Your task to perform on an android device: turn on improve location accuracy Image 0: 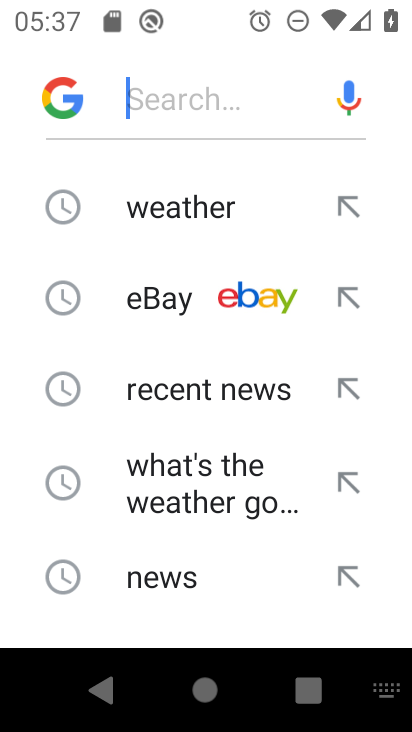
Step 0: press home button
Your task to perform on an android device: turn on improve location accuracy Image 1: 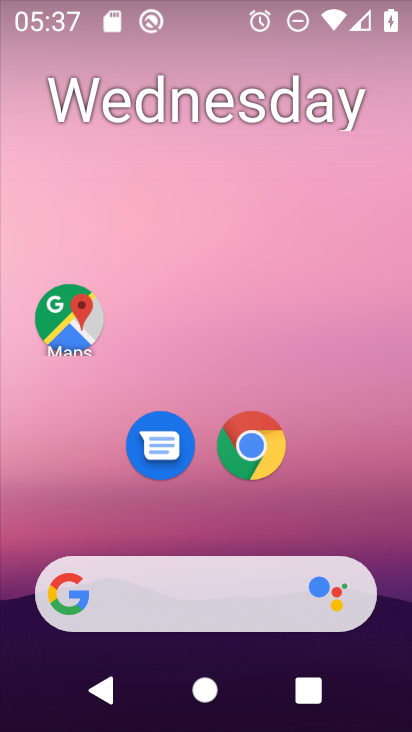
Step 1: drag from (180, 535) to (218, 131)
Your task to perform on an android device: turn on improve location accuracy Image 2: 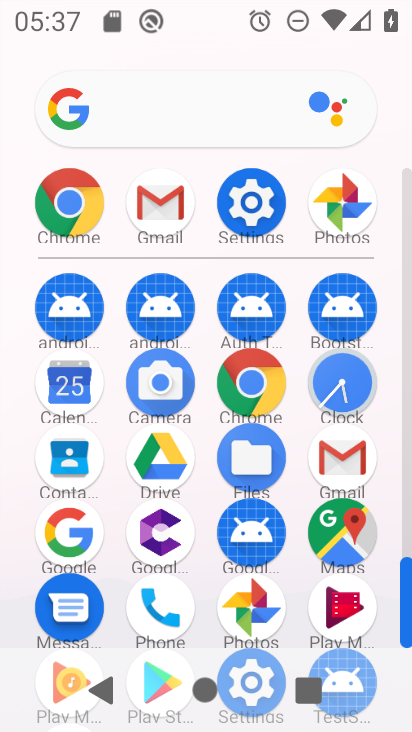
Step 2: click (259, 190)
Your task to perform on an android device: turn on improve location accuracy Image 3: 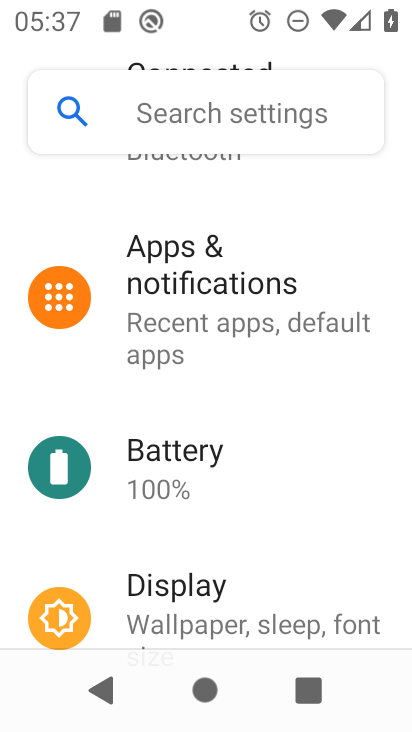
Step 3: drag from (105, 566) to (184, 134)
Your task to perform on an android device: turn on improve location accuracy Image 4: 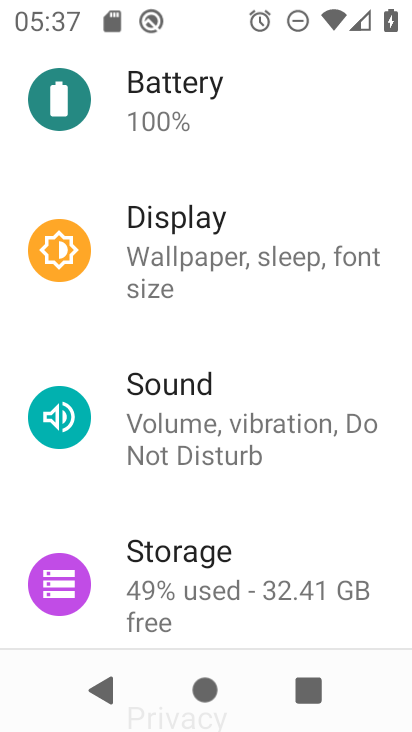
Step 4: drag from (122, 559) to (148, 212)
Your task to perform on an android device: turn on improve location accuracy Image 5: 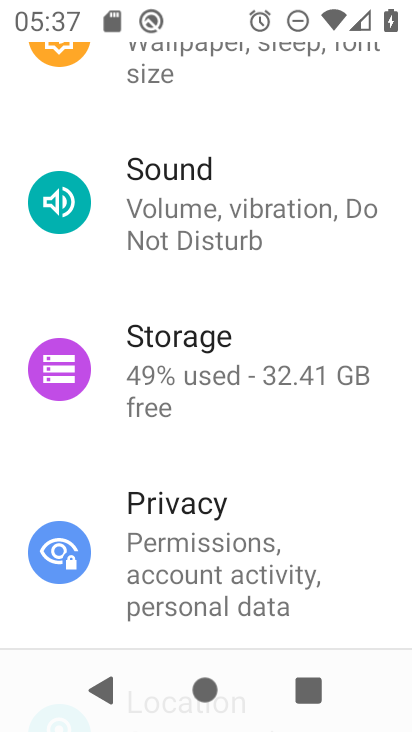
Step 5: drag from (70, 599) to (106, 343)
Your task to perform on an android device: turn on improve location accuracy Image 6: 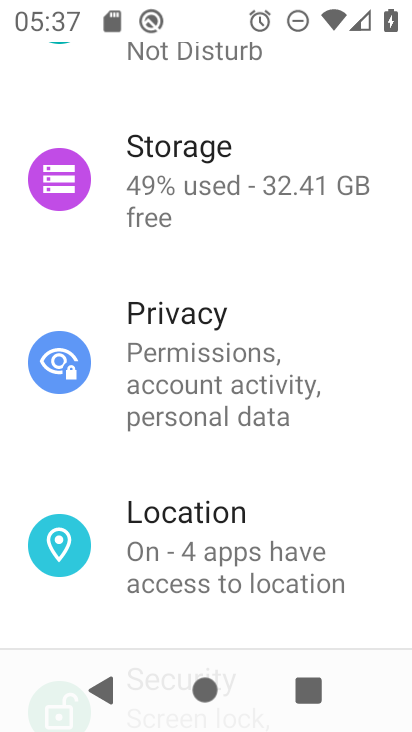
Step 6: click (220, 516)
Your task to perform on an android device: turn on improve location accuracy Image 7: 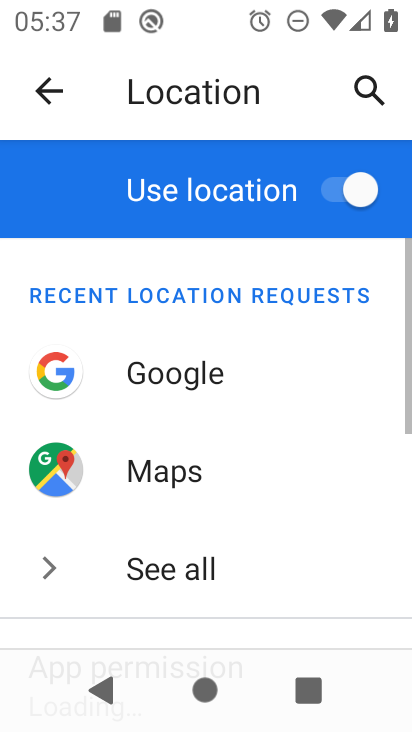
Step 7: drag from (220, 516) to (239, 21)
Your task to perform on an android device: turn on improve location accuracy Image 8: 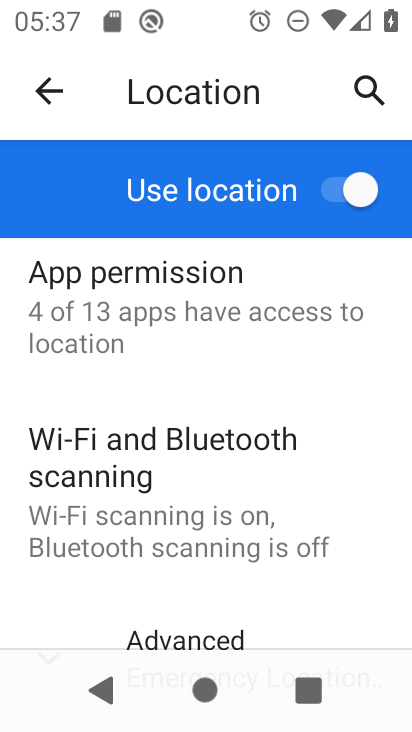
Step 8: click (138, 621)
Your task to perform on an android device: turn on improve location accuracy Image 9: 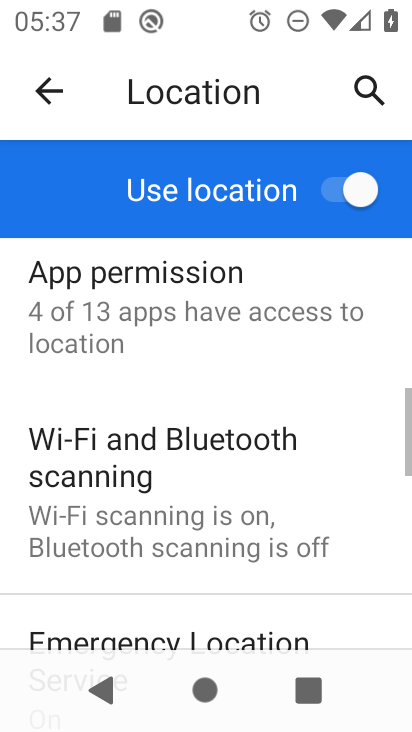
Step 9: task complete